Your task to perform on an android device: find which apps use the phone's location Image 0: 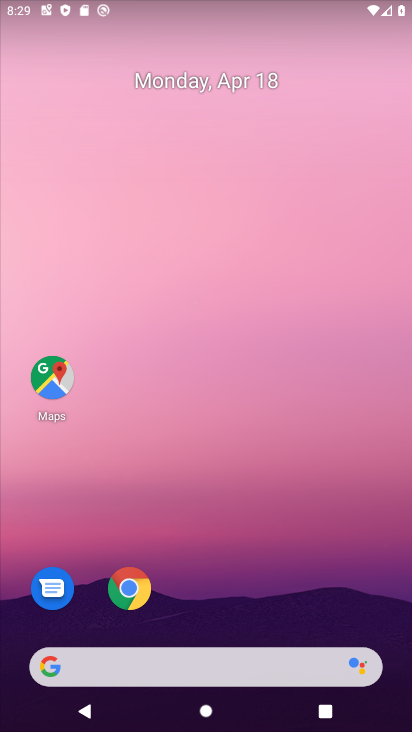
Step 0: drag from (1, 508) to (248, 84)
Your task to perform on an android device: find which apps use the phone's location Image 1: 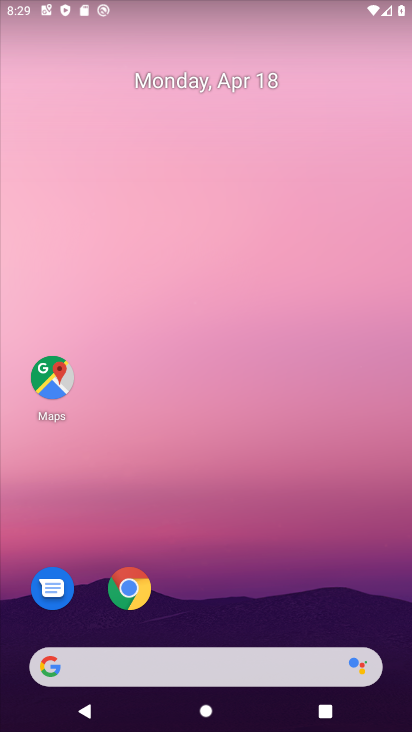
Step 1: drag from (231, 579) to (307, 121)
Your task to perform on an android device: find which apps use the phone's location Image 2: 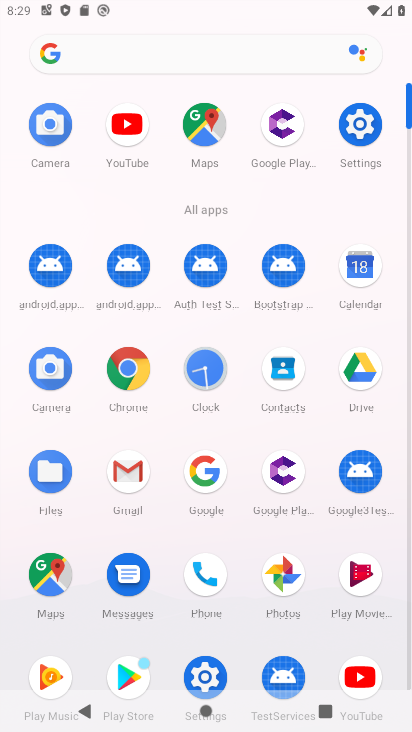
Step 2: click (350, 119)
Your task to perform on an android device: find which apps use the phone's location Image 3: 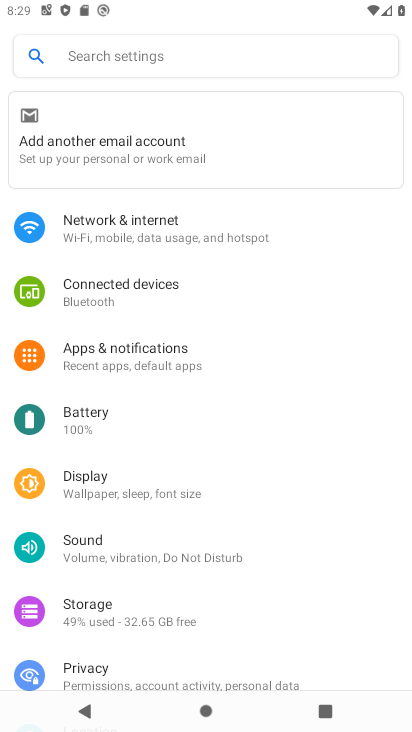
Step 3: drag from (139, 613) to (235, 287)
Your task to perform on an android device: find which apps use the phone's location Image 4: 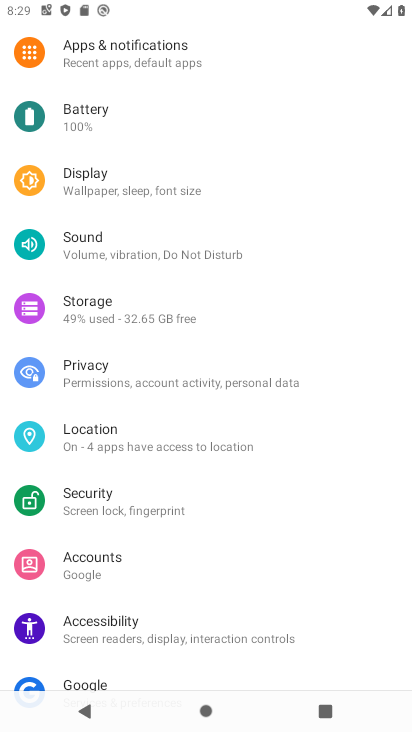
Step 4: click (131, 443)
Your task to perform on an android device: find which apps use the phone's location Image 5: 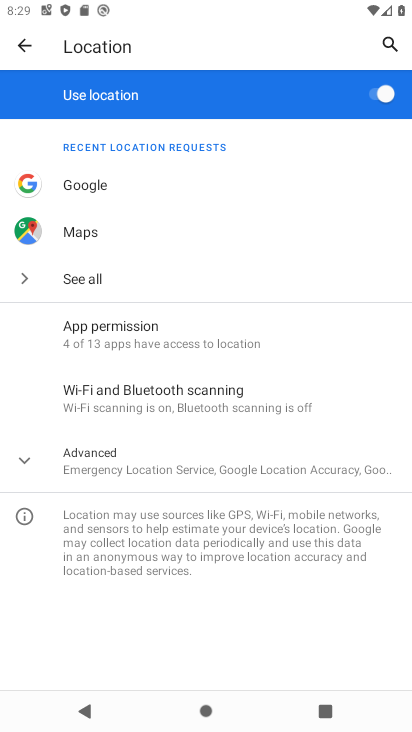
Step 5: click (110, 336)
Your task to perform on an android device: find which apps use the phone's location Image 6: 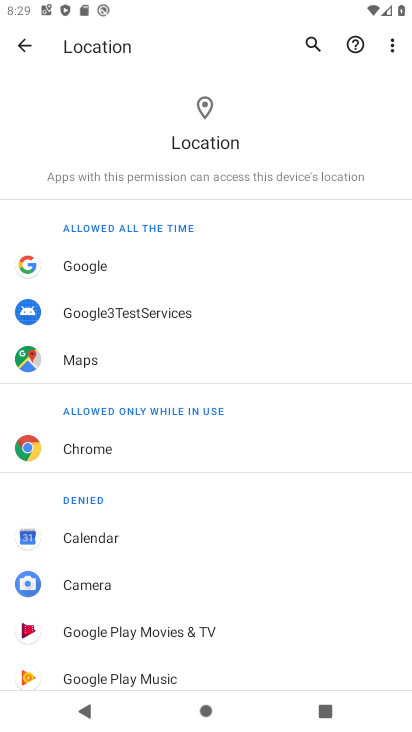
Step 6: drag from (130, 623) to (216, 373)
Your task to perform on an android device: find which apps use the phone's location Image 7: 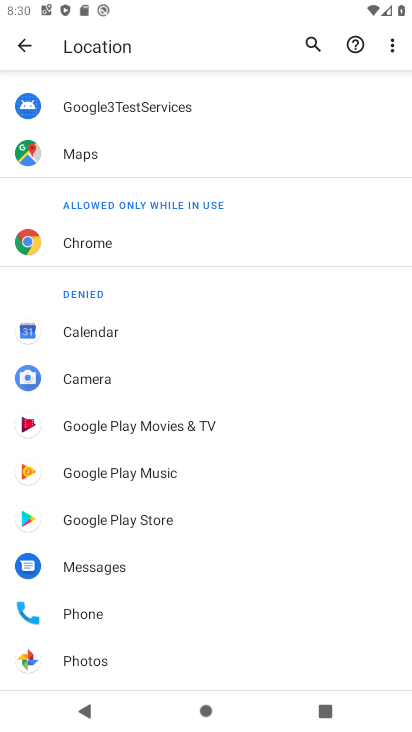
Step 7: click (92, 616)
Your task to perform on an android device: find which apps use the phone's location Image 8: 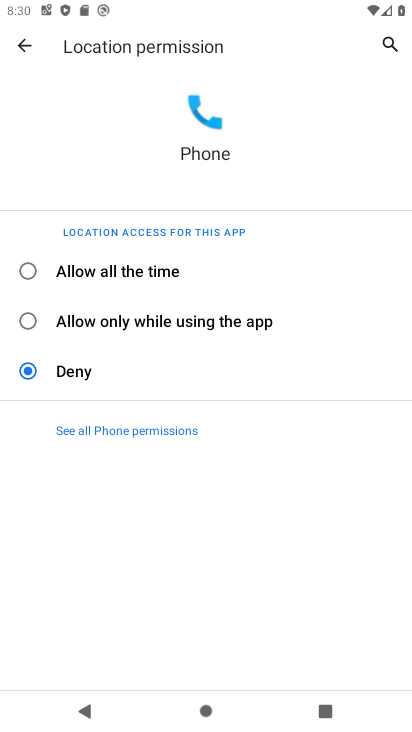
Step 8: click (146, 272)
Your task to perform on an android device: find which apps use the phone's location Image 9: 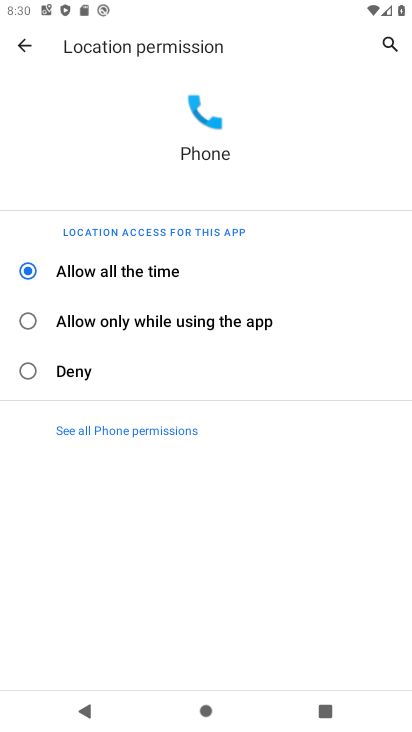
Step 9: task complete